Your task to perform on an android device: turn off sleep mode Image 0: 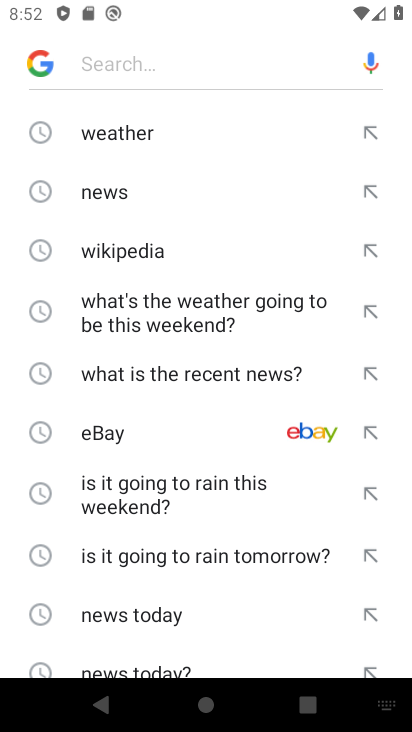
Step 0: press back button
Your task to perform on an android device: turn off sleep mode Image 1: 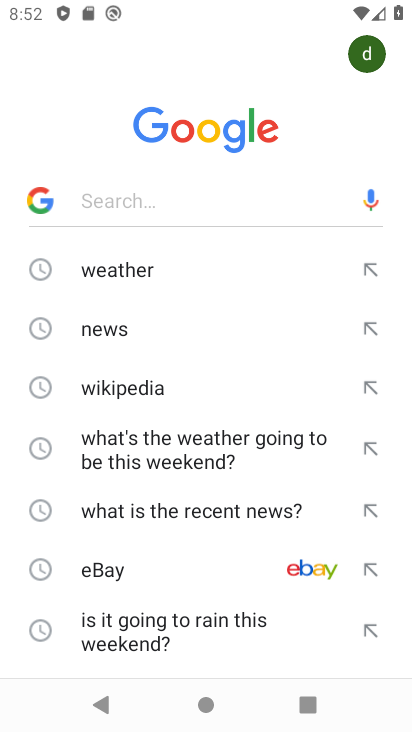
Step 1: press back button
Your task to perform on an android device: turn off sleep mode Image 2: 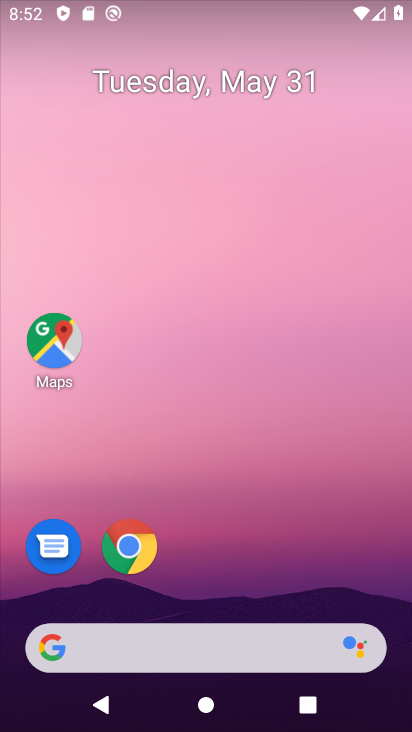
Step 2: drag from (403, 707) to (338, 40)
Your task to perform on an android device: turn off sleep mode Image 3: 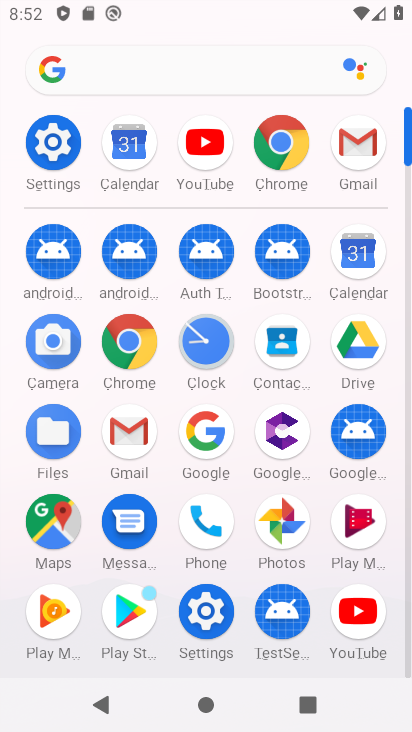
Step 3: click (54, 136)
Your task to perform on an android device: turn off sleep mode Image 4: 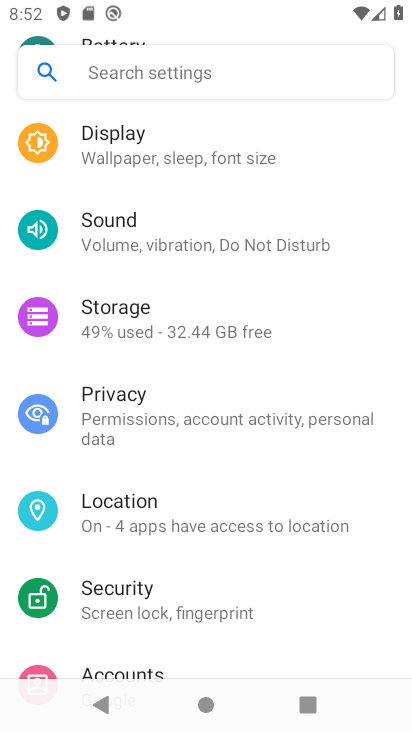
Step 4: click (120, 143)
Your task to perform on an android device: turn off sleep mode Image 5: 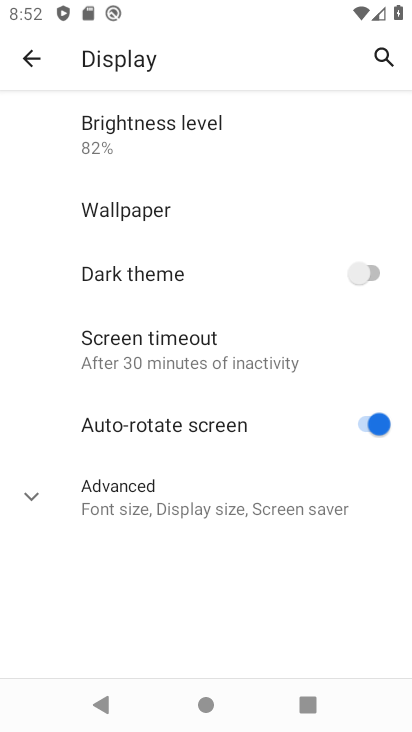
Step 5: click (128, 356)
Your task to perform on an android device: turn off sleep mode Image 6: 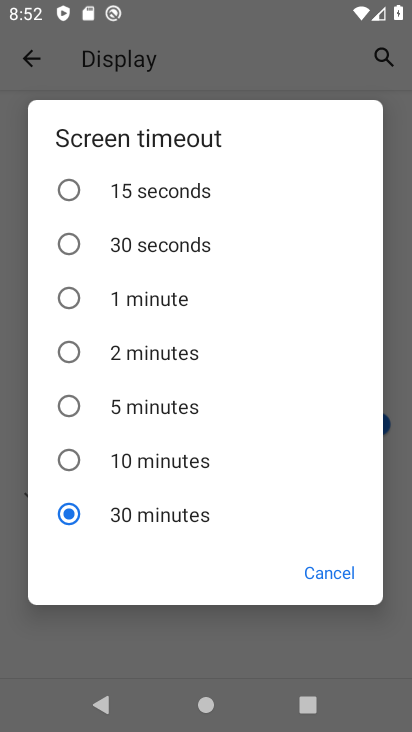
Step 6: task complete